Your task to perform on an android device: install app "WhatsApp Messenger" Image 0: 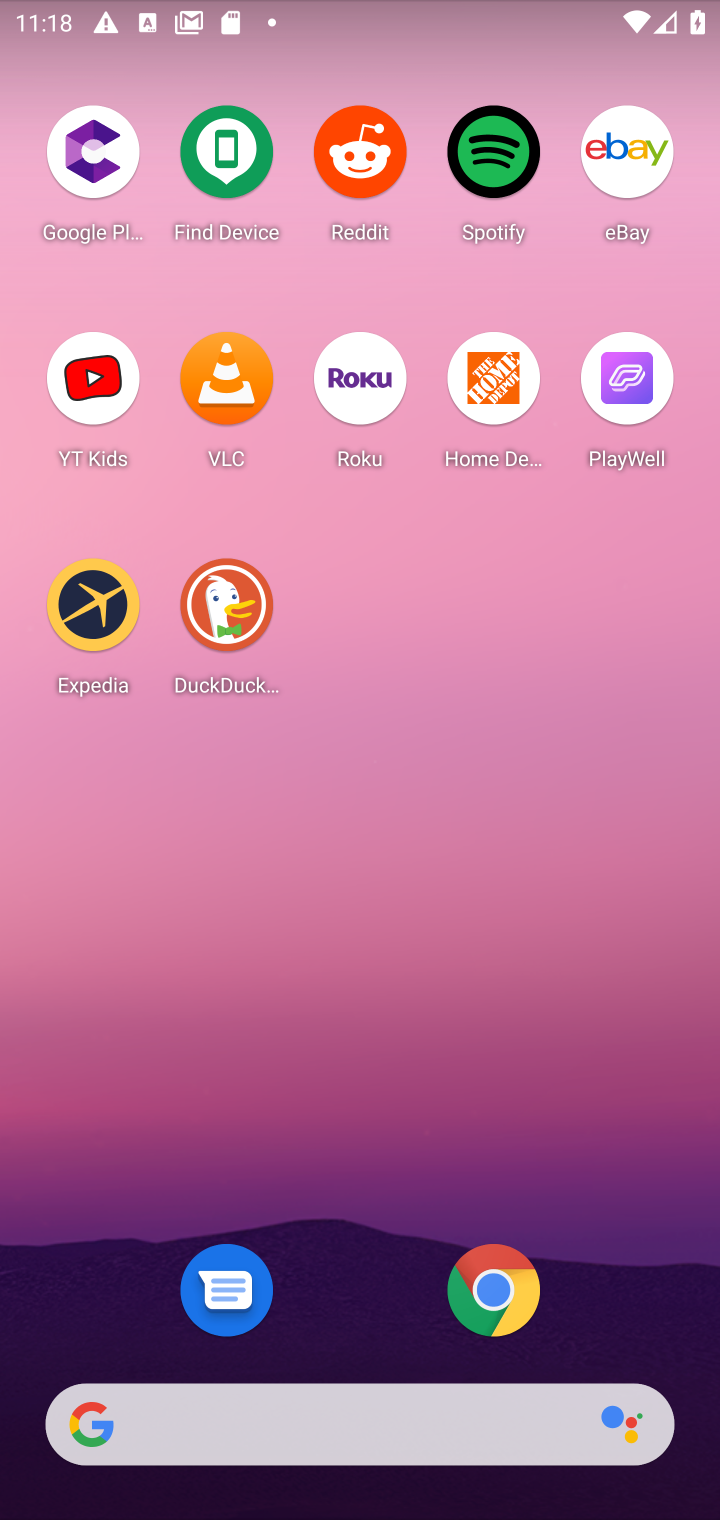
Step 0: drag from (323, 809) to (270, 81)
Your task to perform on an android device: install app "WhatsApp Messenger" Image 1: 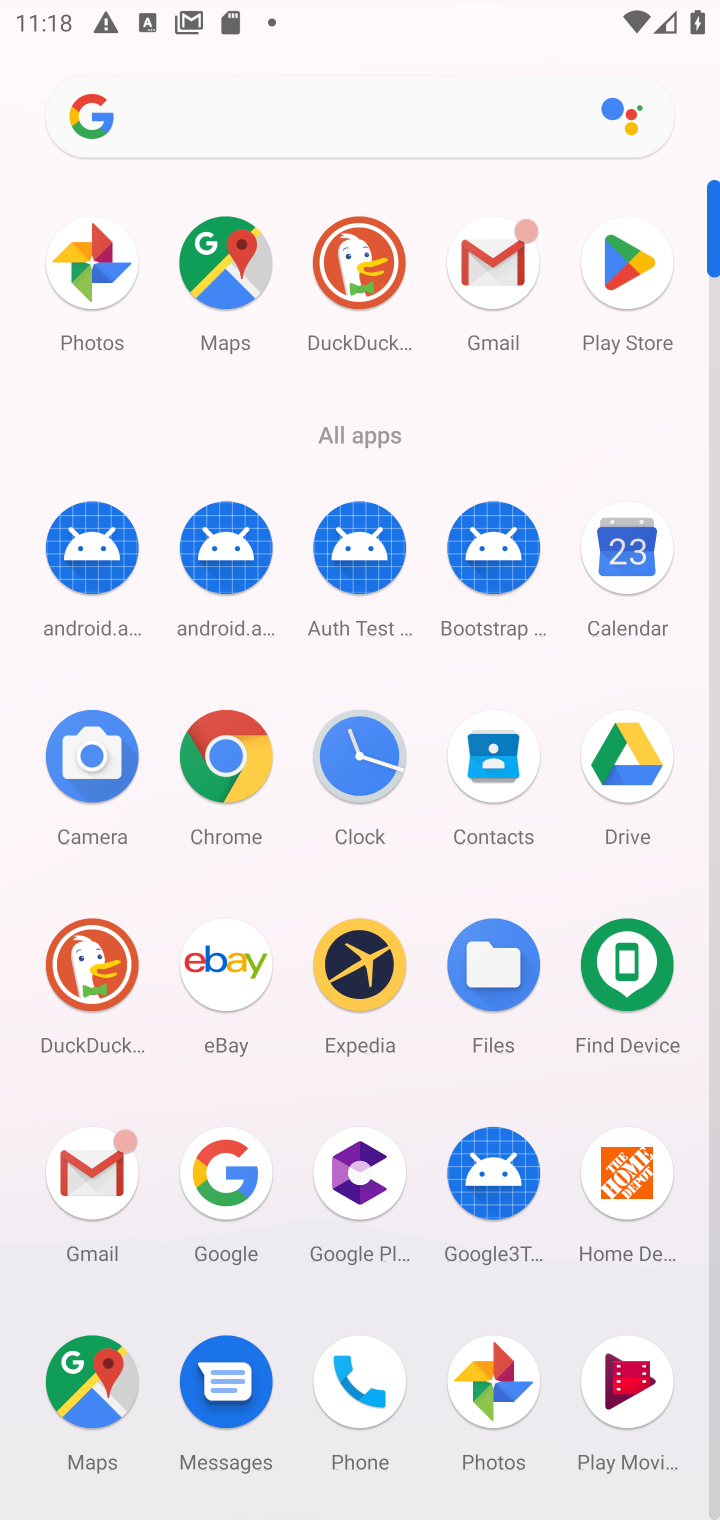
Step 1: click (624, 278)
Your task to perform on an android device: install app "WhatsApp Messenger" Image 2: 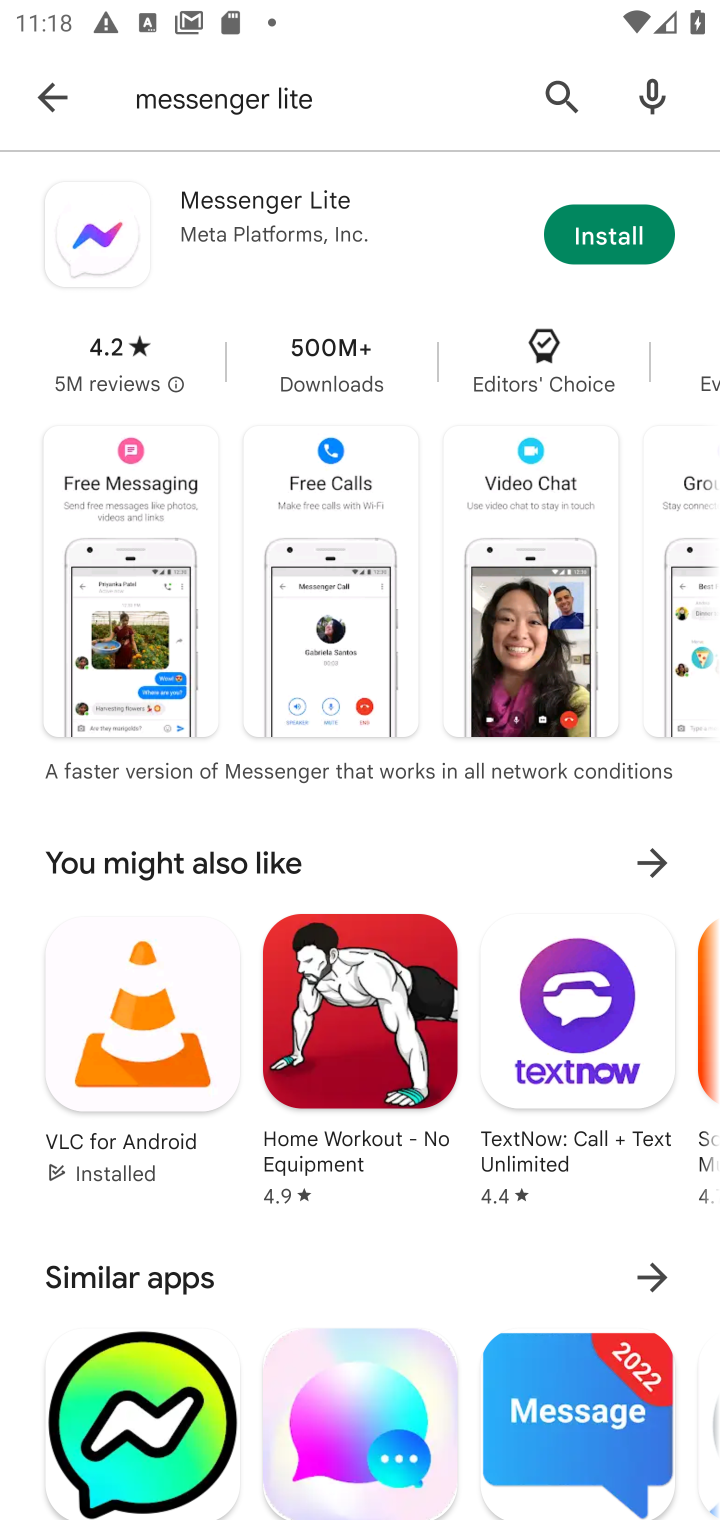
Step 2: click (560, 88)
Your task to perform on an android device: install app "WhatsApp Messenger" Image 3: 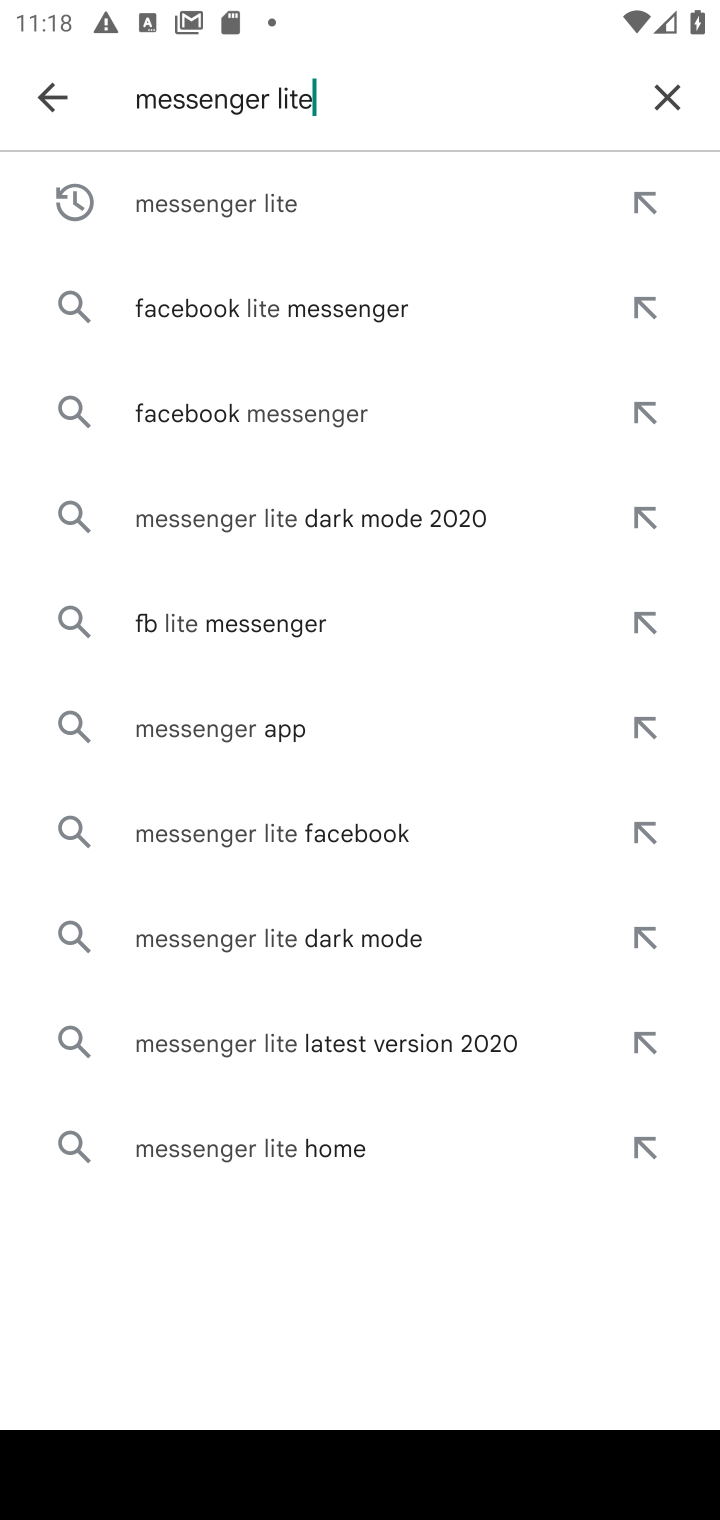
Step 3: click (656, 96)
Your task to perform on an android device: install app "WhatsApp Messenger" Image 4: 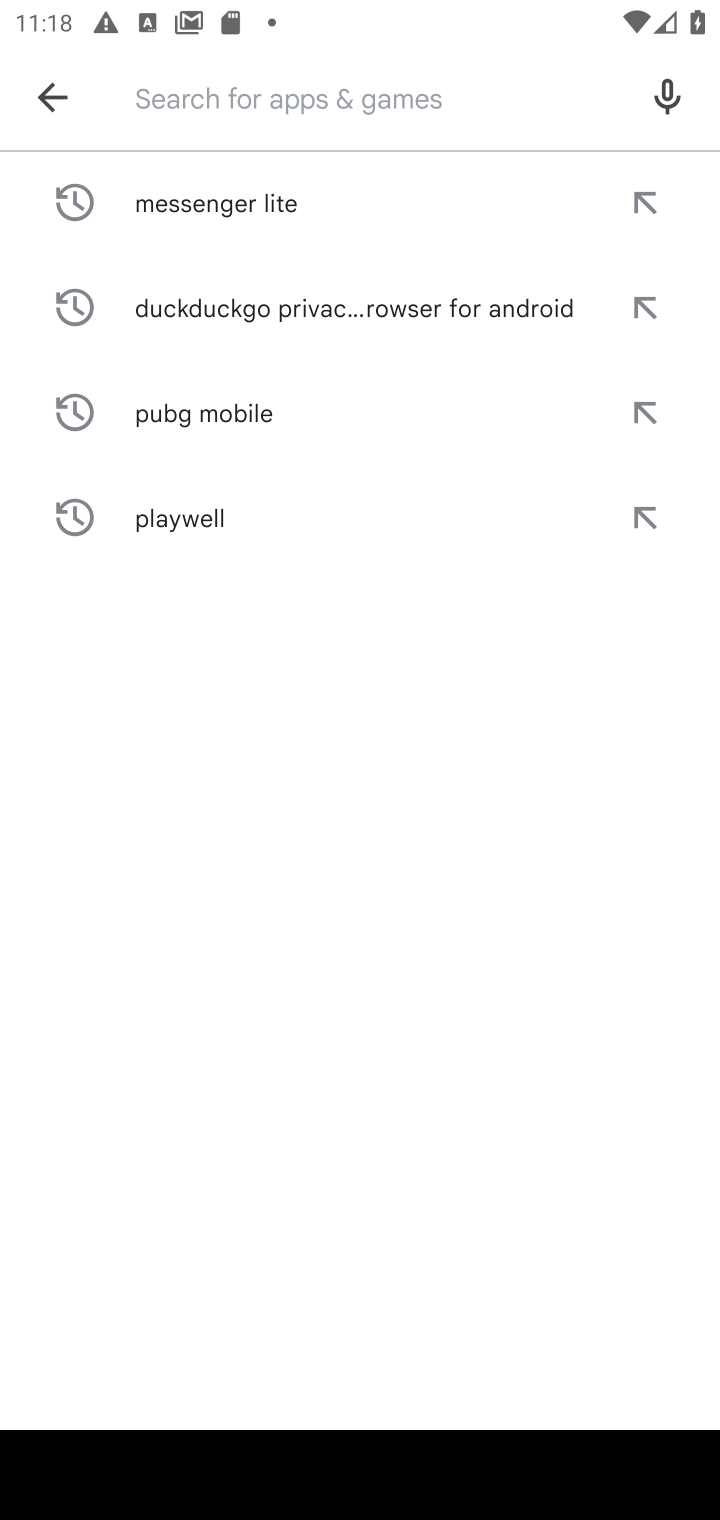
Step 4: type "WhatsAPP Messenger"
Your task to perform on an android device: install app "WhatsApp Messenger" Image 5: 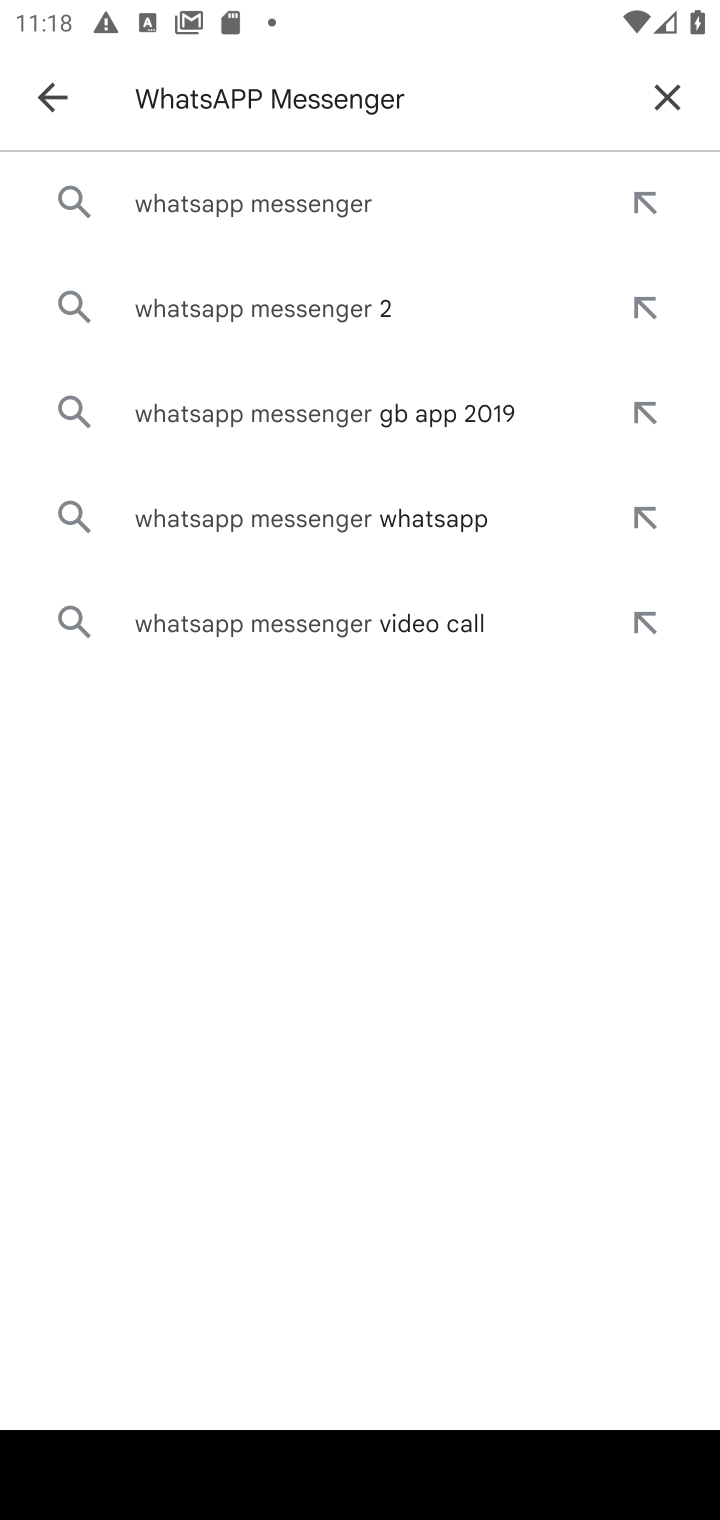
Step 5: click (335, 203)
Your task to perform on an android device: install app "WhatsApp Messenger" Image 6: 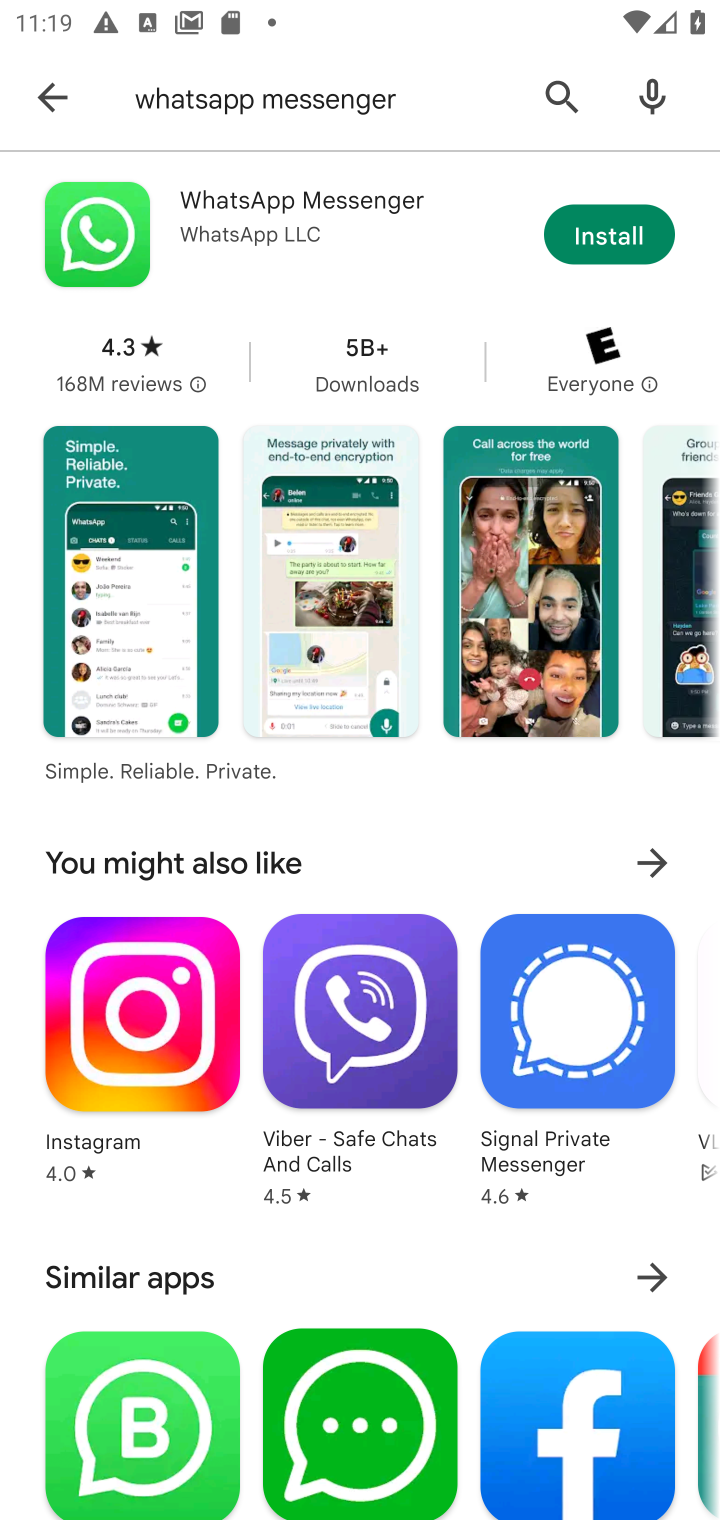
Step 6: click (615, 206)
Your task to perform on an android device: install app "WhatsApp Messenger" Image 7: 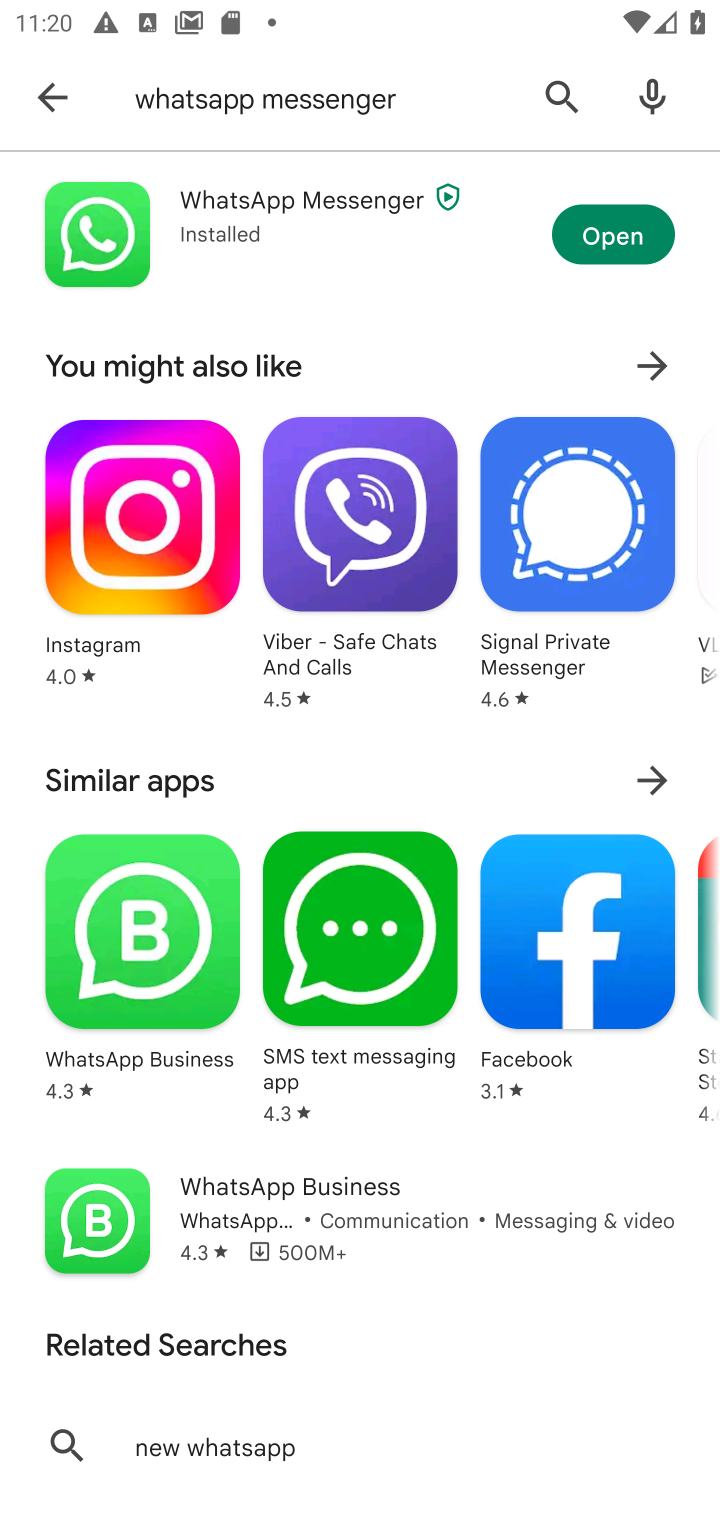
Step 7: task complete